Your task to perform on an android device: Show me recent news Image 0: 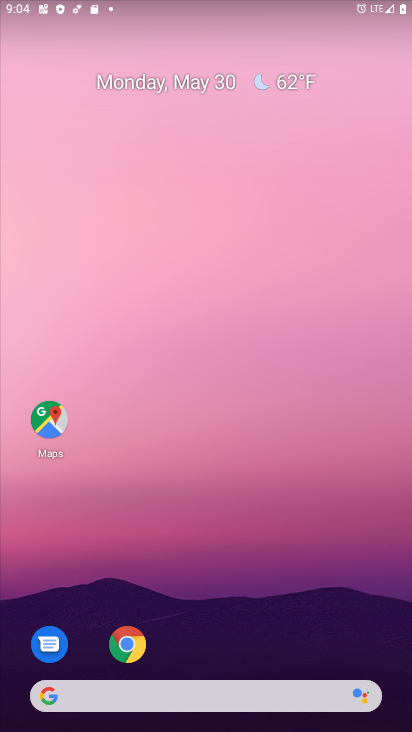
Step 0: drag from (13, 267) to (394, 253)
Your task to perform on an android device: Show me recent news Image 1: 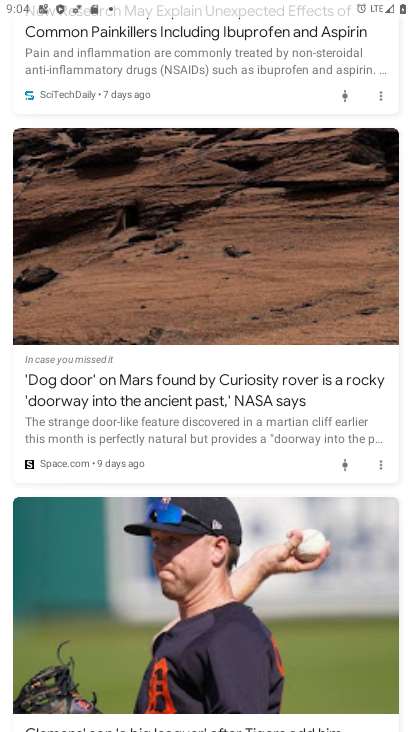
Step 1: task complete